Your task to perform on an android device: change the upload size in google photos Image 0: 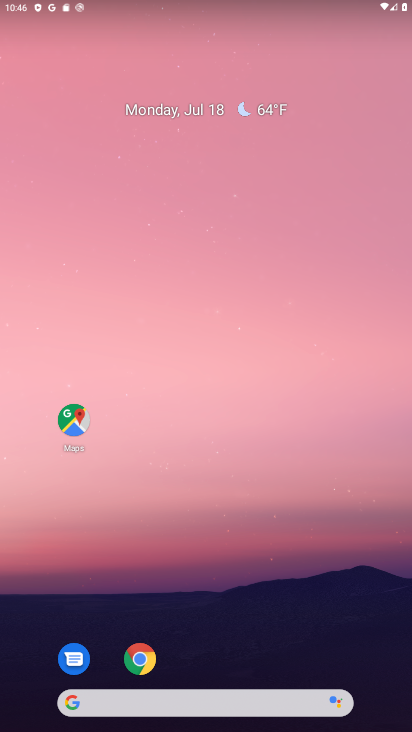
Step 0: press home button
Your task to perform on an android device: change the upload size in google photos Image 1: 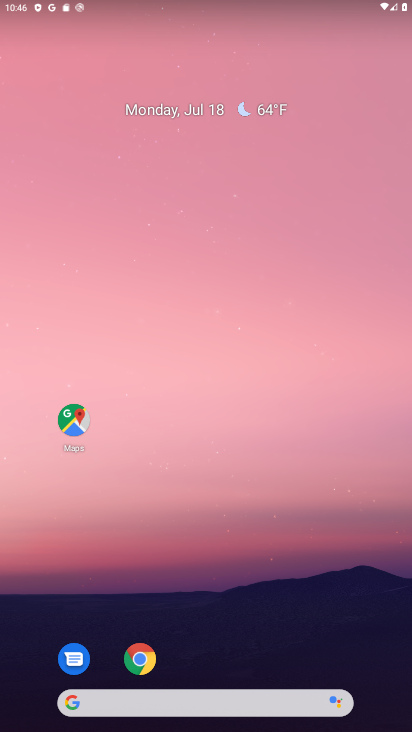
Step 1: drag from (282, 653) to (149, 128)
Your task to perform on an android device: change the upload size in google photos Image 2: 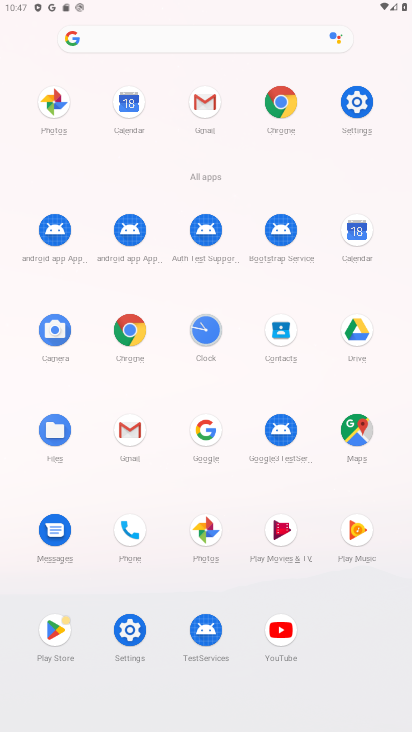
Step 2: click (208, 531)
Your task to perform on an android device: change the upload size in google photos Image 3: 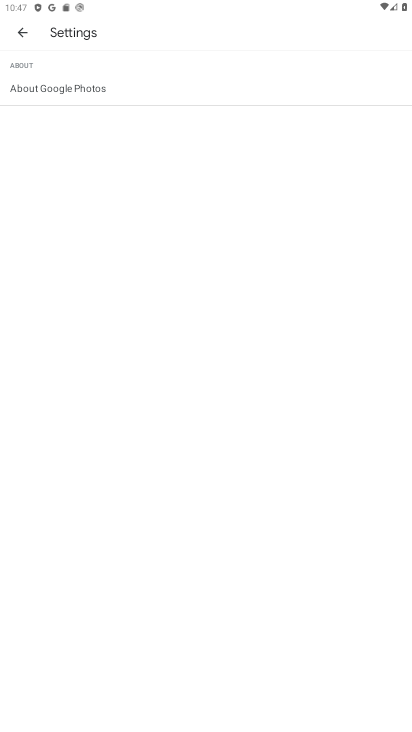
Step 3: click (14, 31)
Your task to perform on an android device: change the upload size in google photos Image 4: 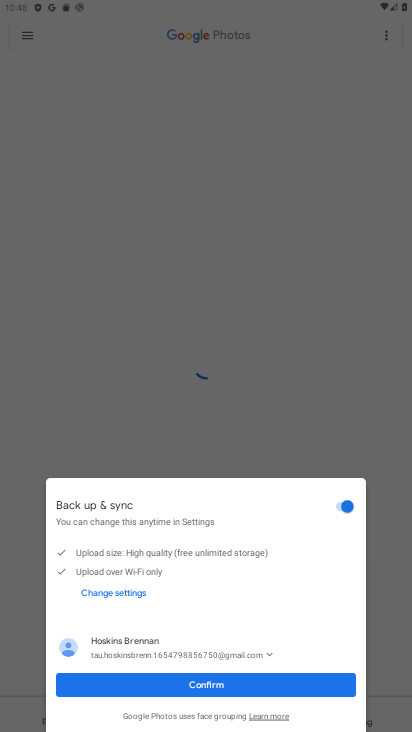
Step 4: click (207, 697)
Your task to perform on an android device: change the upload size in google photos Image 5: 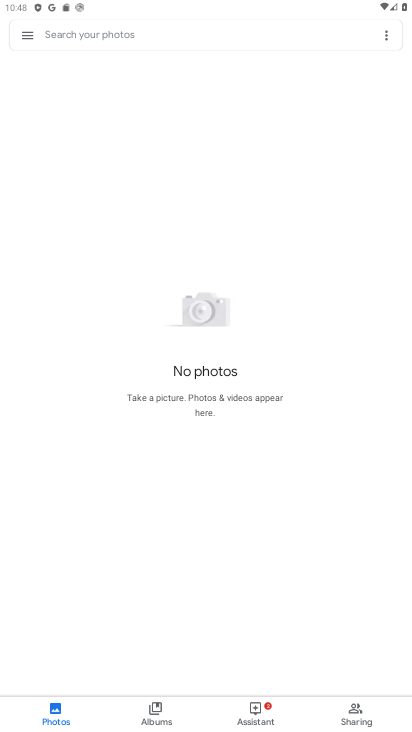
Step 5: click (12, 41)
Your task to perform on an android device: change the upload size in google photos Image 6: 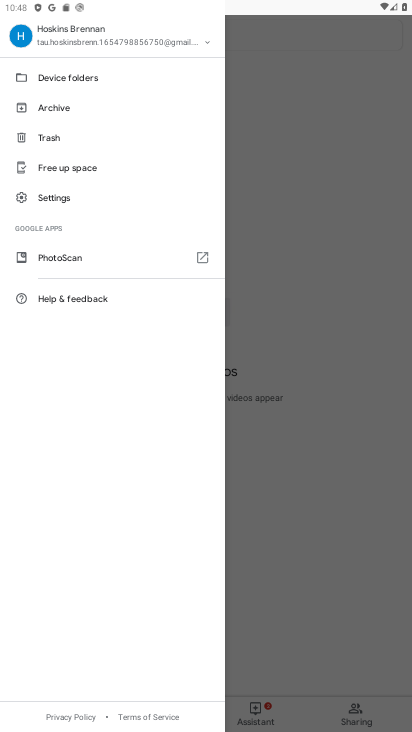
Step 6: click (27, 210)
Your task to perform on an android device: change the upload size in google photos Image 7: 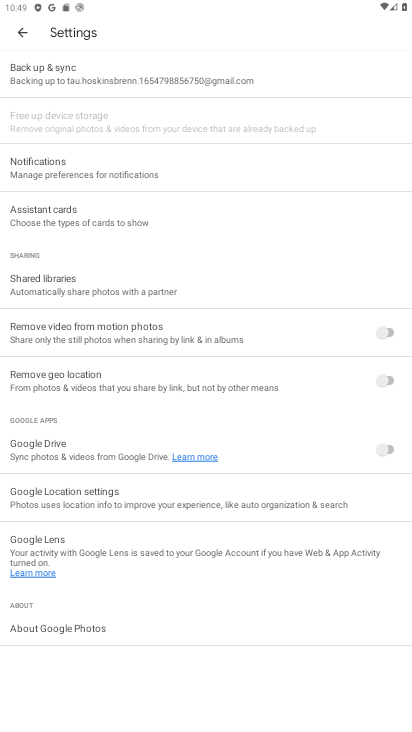
Step 7: click (46, 70)
Your task to perform on an android device: change the upload size in google photos Image 8: 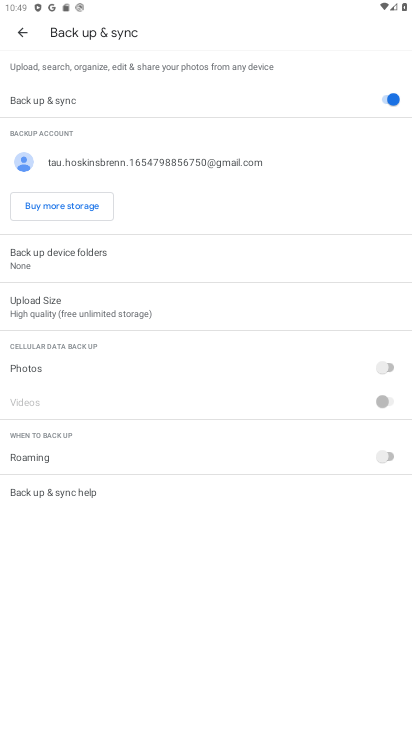
Step 8: click (31, 323)
Your task to perform on an android device: change the upload size in google photos Image 9: 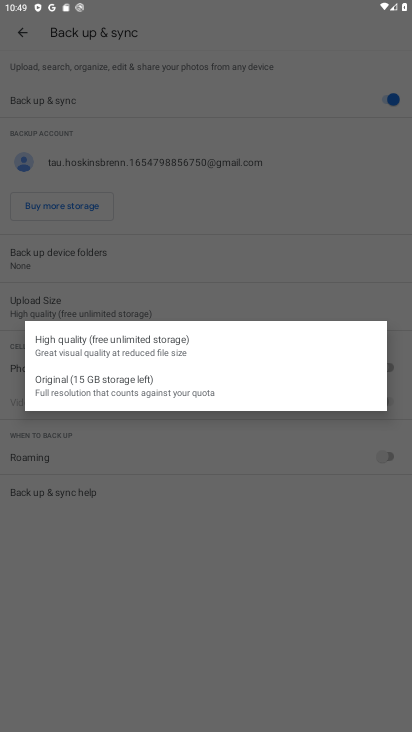
Step 9: click (83, 376)
Your task to perform on an android device: change the upload size in google photos Image 10: 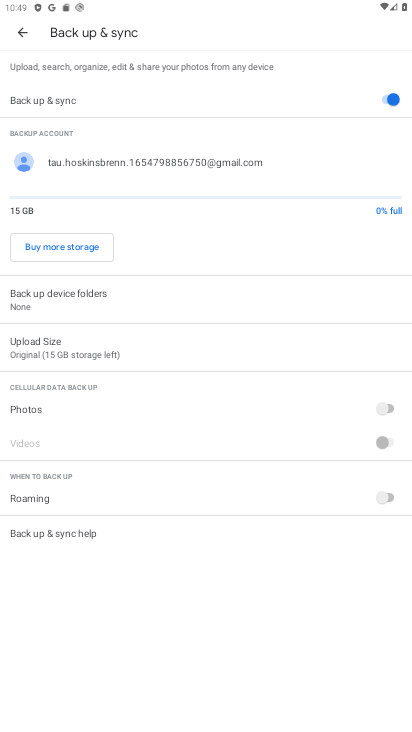
Step 10: task complete